Your task to perform on an android device: Go to Amazon Image 0: 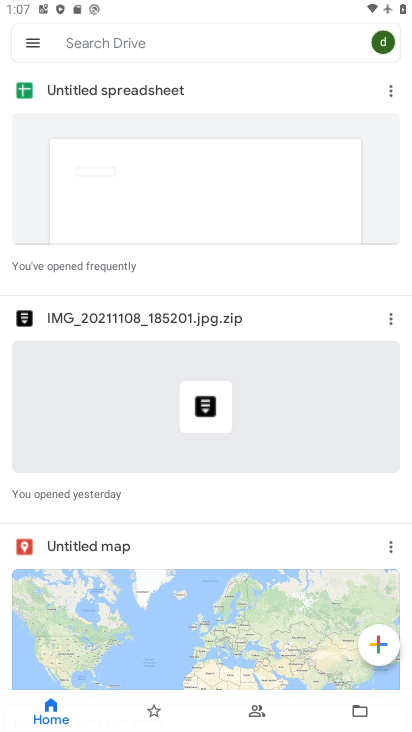
Step 0: press home button
Your task to perform on an android device: Go to Amazon Image 1: 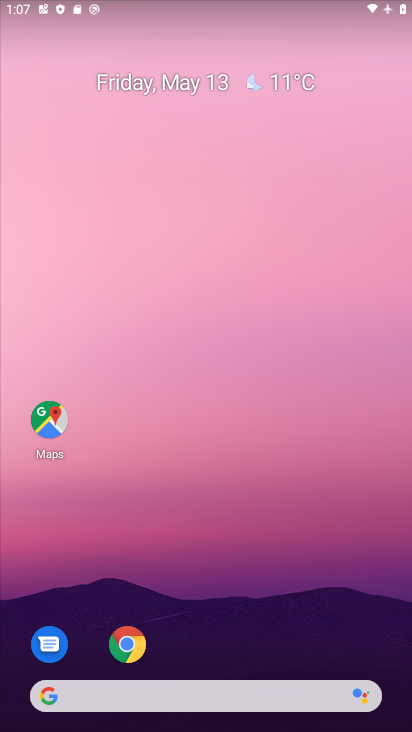
Step 1: click (128, 643)
Your task to perform on an android device: Go to Amazon Image 2: 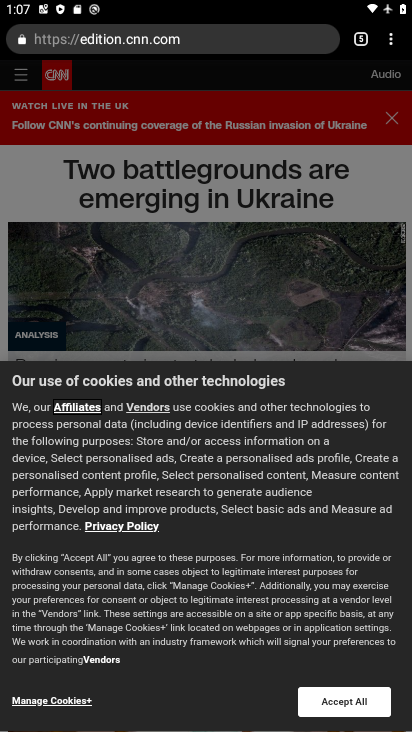
Step 2: click (392, 42)
Your task to perform on an android device: Go to Amazon Image 3: 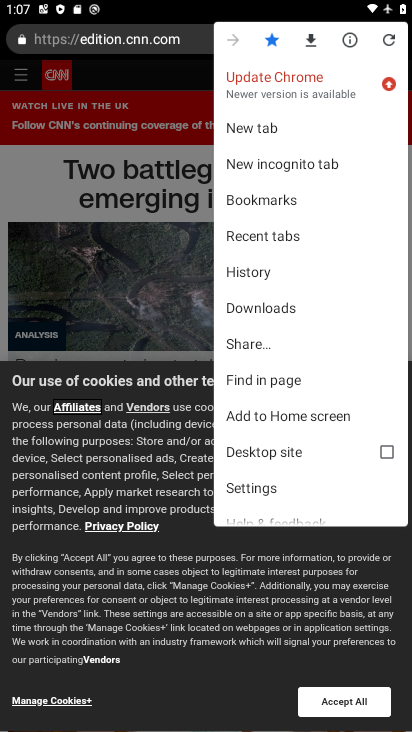
Step 3: click (254, 129)
Your task to perform on an android device: Go to Amazon Image 4: 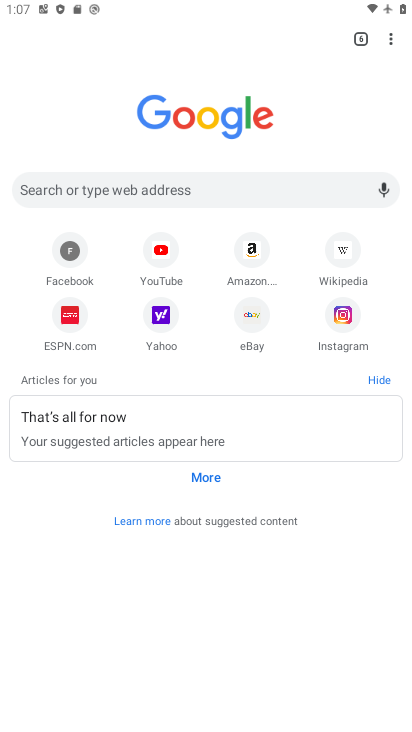
Step 4: click (181, 190)
Your task to perform on an android device: Go to Amazon Image 5: 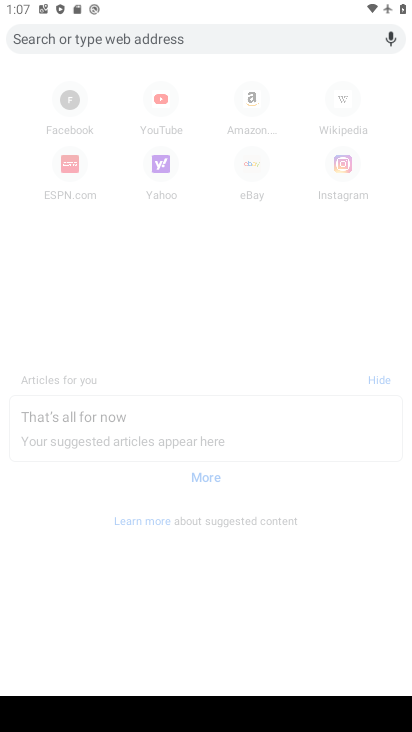
Step 5: type "Amazone"
Your task to perform on an android device: Go to Amazon Image 6: 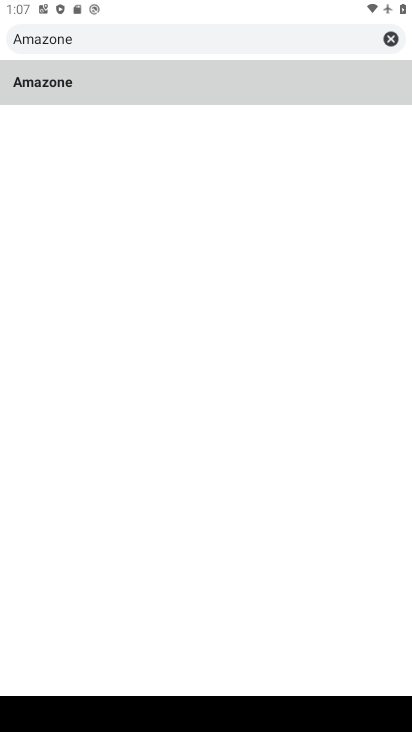
Step 6: click (158, 83)
Your task to perform on an android device: Go to Amazon Image 7: 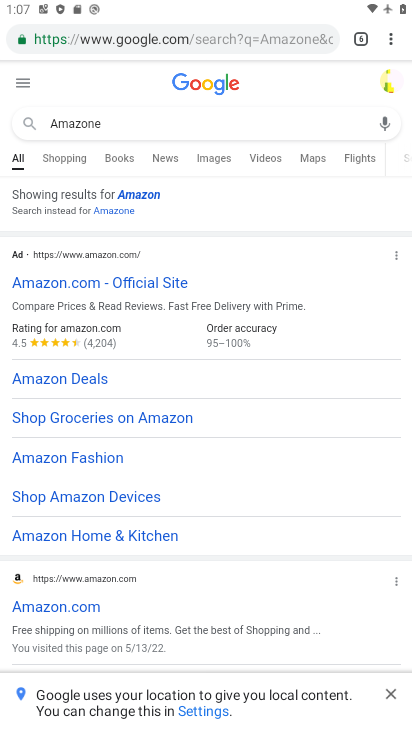
Step 7: click (99, 278)
Your task to perform on an android device: Go to Amazon Image 8: 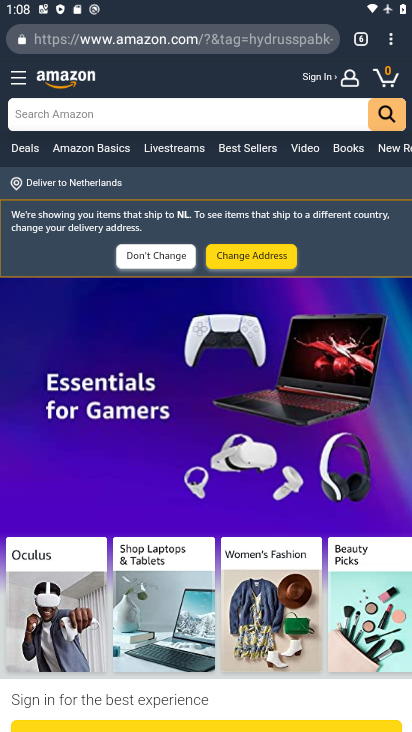
Step 8: task complete